Your task to perform on an android device: search for starred emails in the gmail app Image 0: 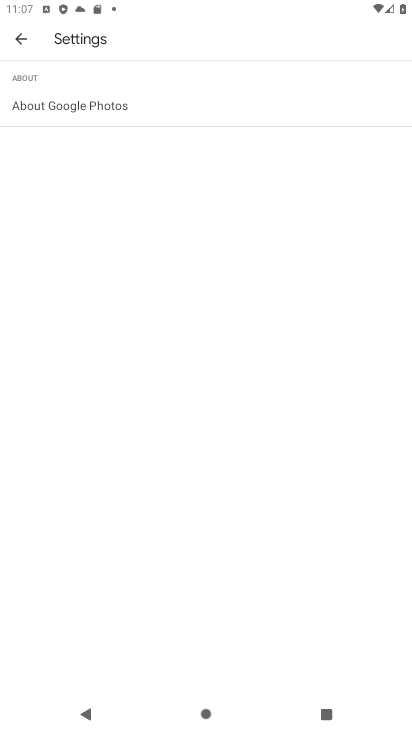
Step 0: task complete